Your task to perform on an android device: turn smart compose on in the gmail app Image 0: 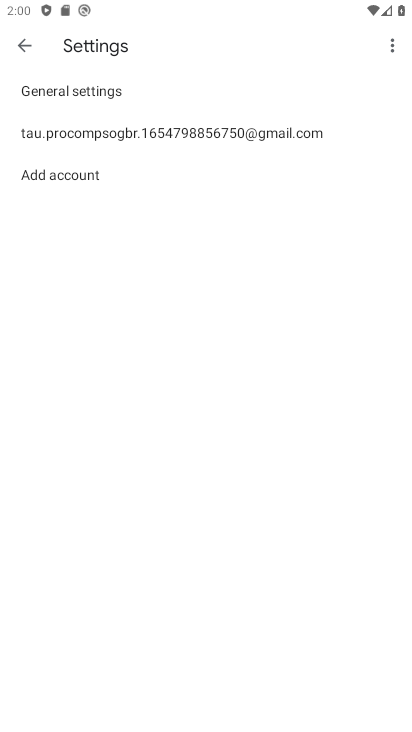
Step 0: press home button
Your task to perform on an android device: turn smart compose on in the gmail app Image 1: 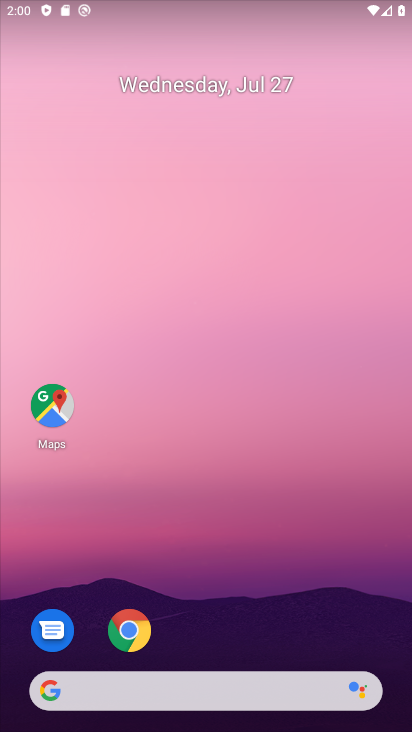
Step 1: drag from (233, 612) to (232, 305)
Your task to perform on an android device: turn smart compose on in the gmail app Image 2: 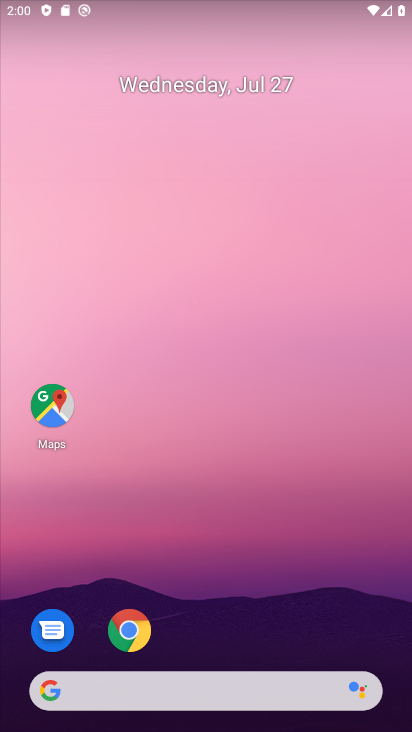
Step 2: drag from (321, 641) to (173, 5)
Your task to perform on an android device: turn smart compose on in the gmail app Image 3: 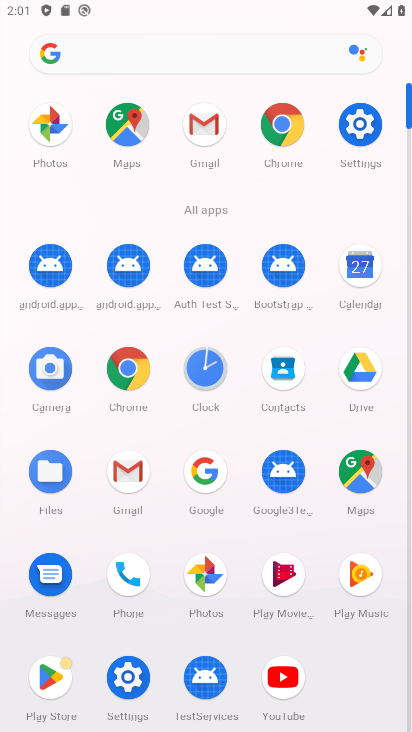
Step 3: click (126, 461)
Your task to perform on an android device: turn smart compose on in the gmail app Image 4: 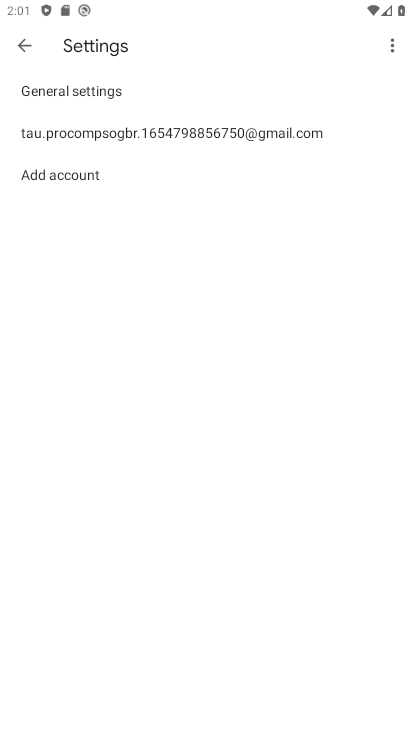
Step 4: click (52, 134)
Your task to perform on an android device: turn smart compose on in the gmail app Image 5: 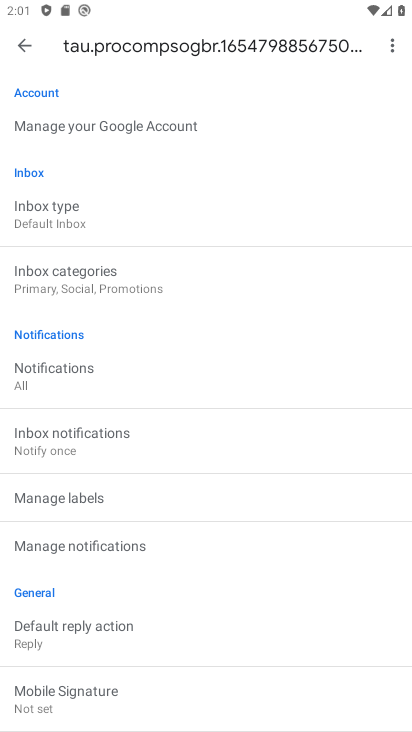
Step 5: task complete